Your task to perform on an android device: Open Chrome and go to the settings page Image 0: 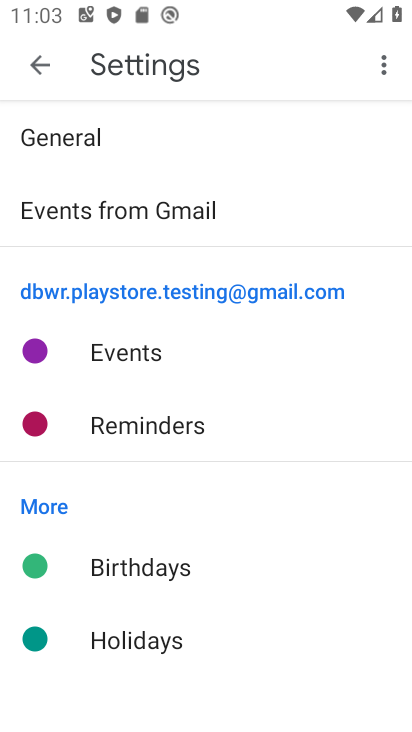
Step 0: click (44, 71)
Your task to perform on an android device: Open Chrome and go to the settings page Image 1: 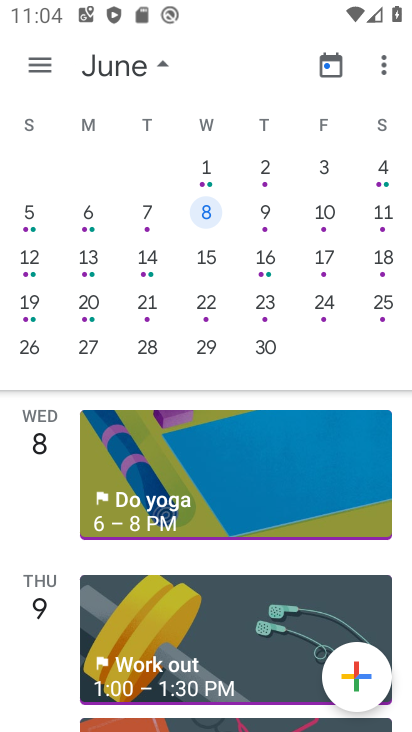
Step 1: press back button
Your task to perform on an android device: Open Chrome and go to the settings page Image 2: 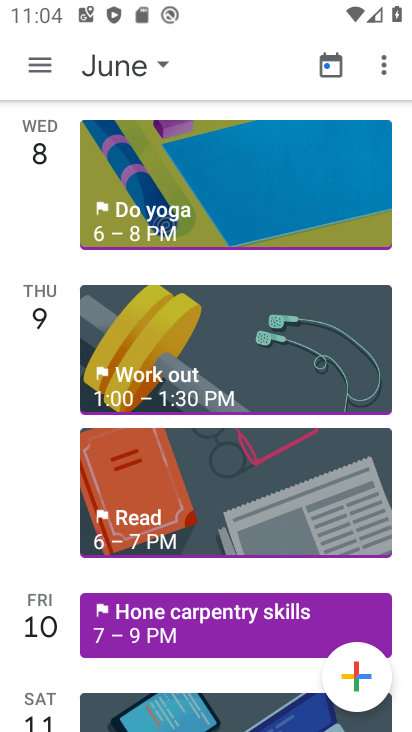
Step 2: press home button
Your task to perform on an android device: Open Chrome and go to the settings page Image 3: 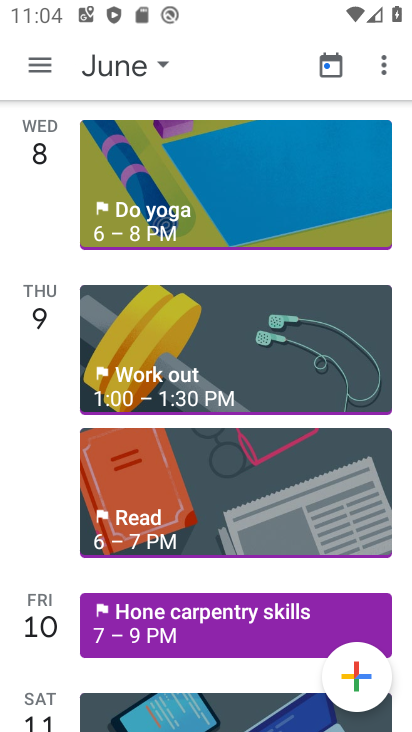
Step 3: press home button
Your task to perform on an android device: Open Chrome and go to the settings page Image 4: 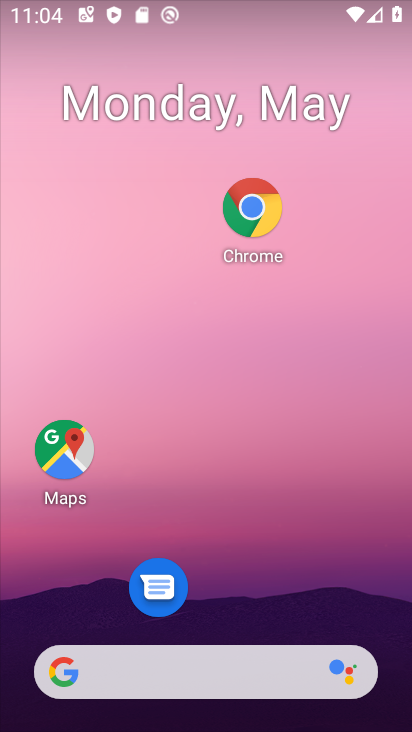
Step 4: drag from (265, 655) to (41, 13)
Your task to perform on an android device: Open Chrome and go to the settings page Image 5: 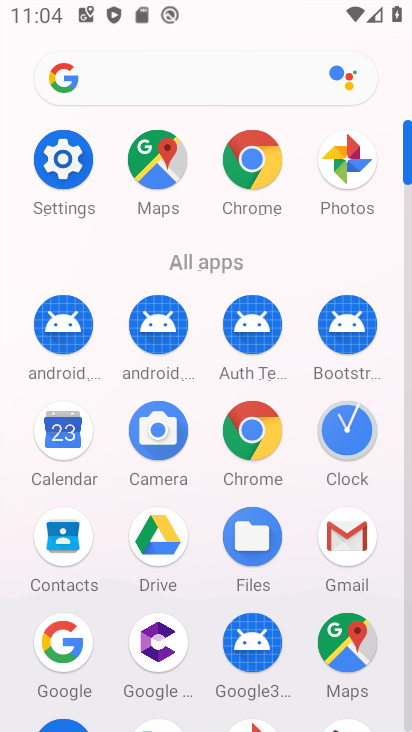
Step 5: click (250, 159)
Your task to perform on an android device: Open Chrome and go to the settings page Image 6: 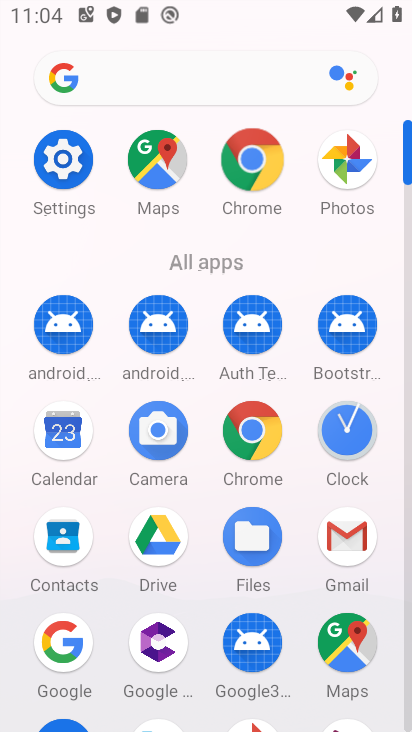
Step 6: click (256, 152)
Your task to perform on an android device: Open Chrome and go to the settings page Image 7: 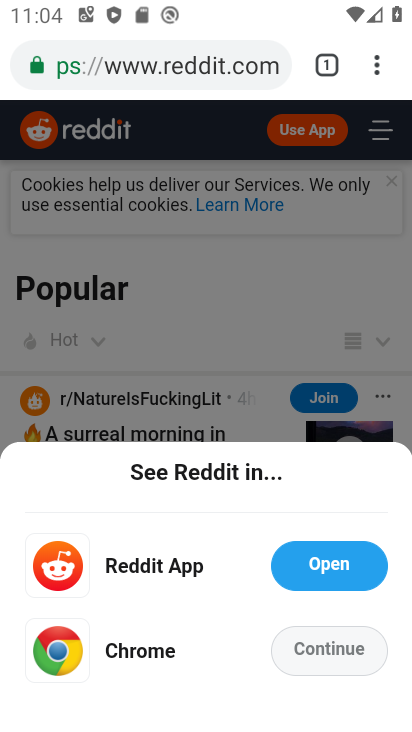
Step 7: drag from (368, 65) to (154, 654)
Your task to perform on an android device: Open Chrome and go to the settings page Image 8: 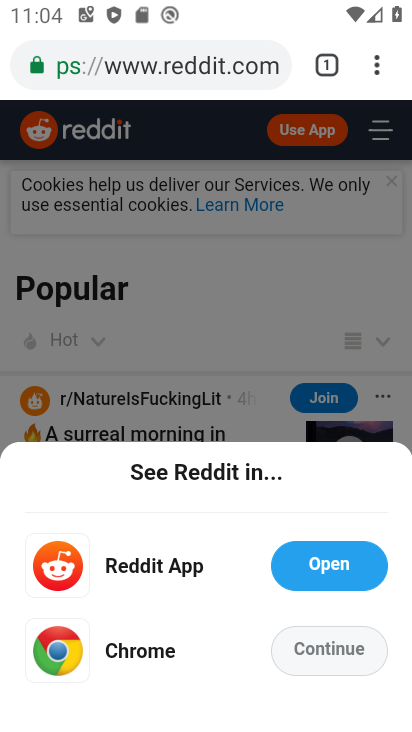
Step 8: click (161, 651)
Your task to perform on an android device: Open Chrome and go to the settings page Image 9: 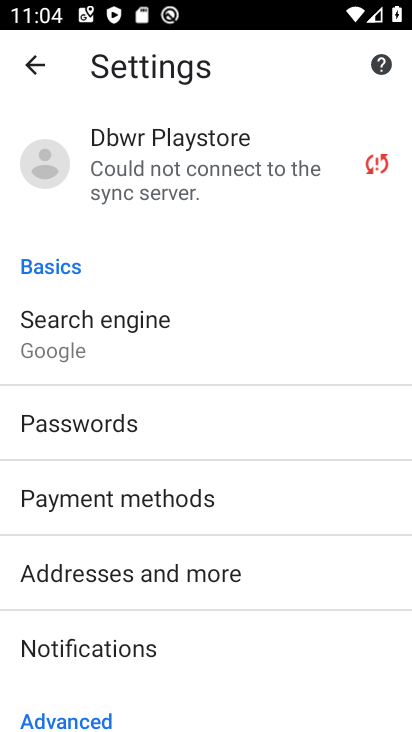
Step 9: task complete